Your task to perform on an android device: all mails in gmail Image 0: 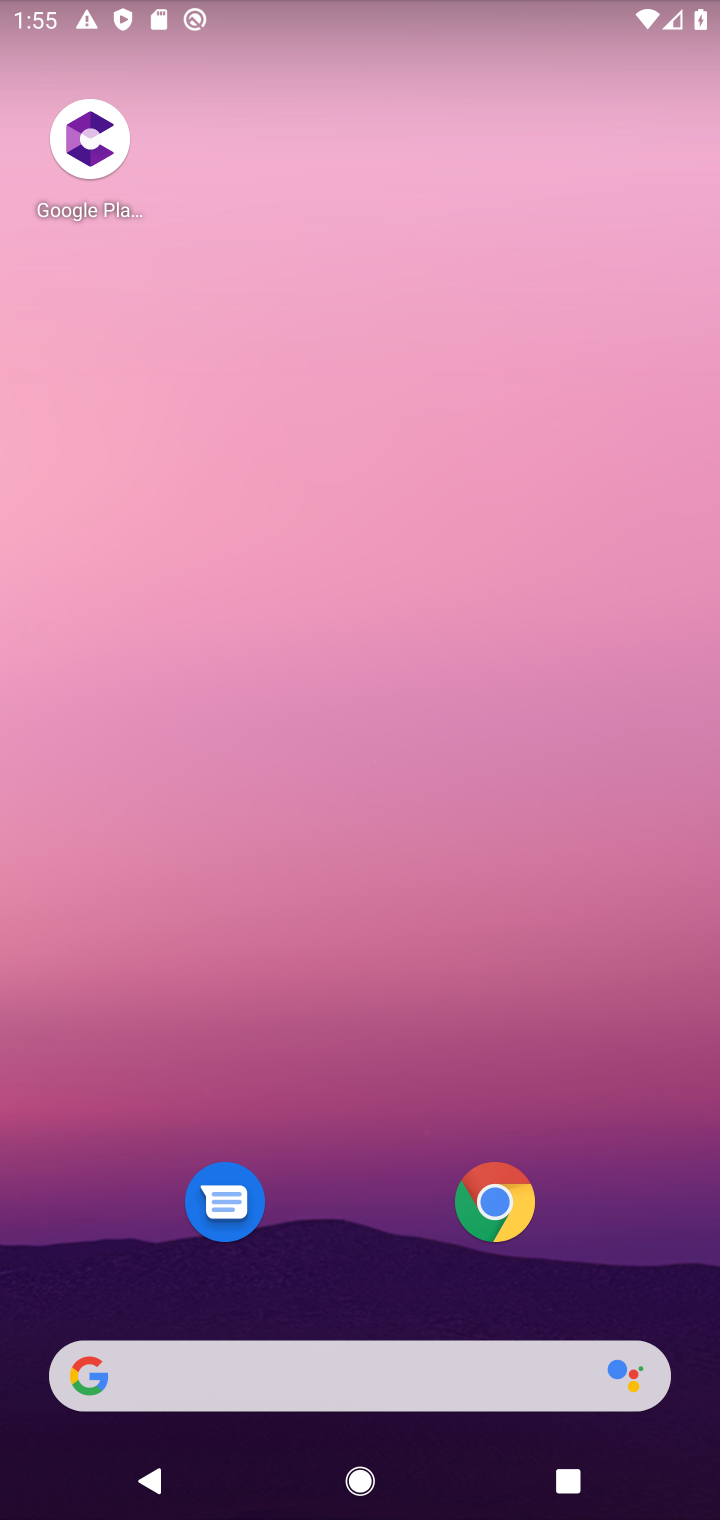
Step 0: drag from (483, 660) to (154, 13)
Your task to perform on an android device: all mails in gmail Image 1: 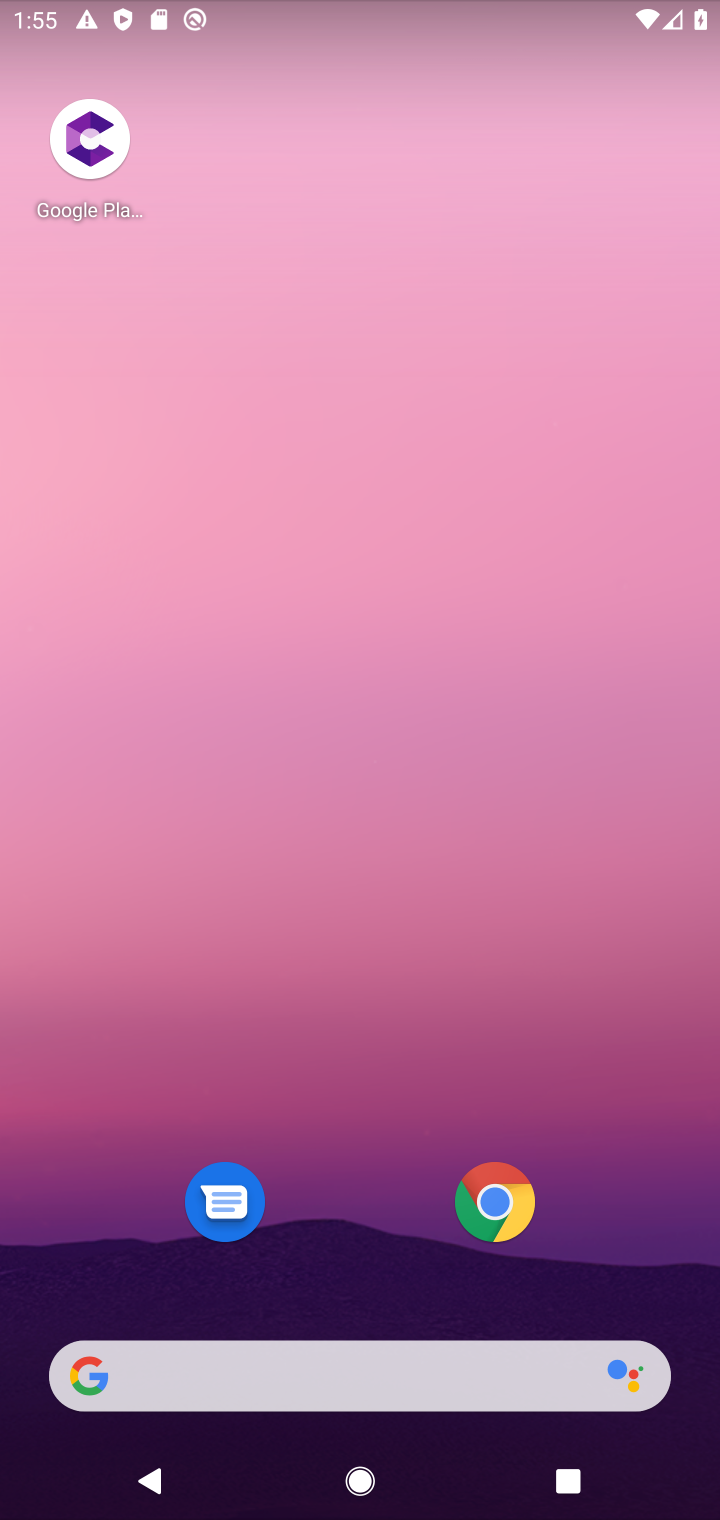
Step 1: drag from (179, 1257) to (448, 137)
Your task to perform on an android device: all mails in gmail Image 2: 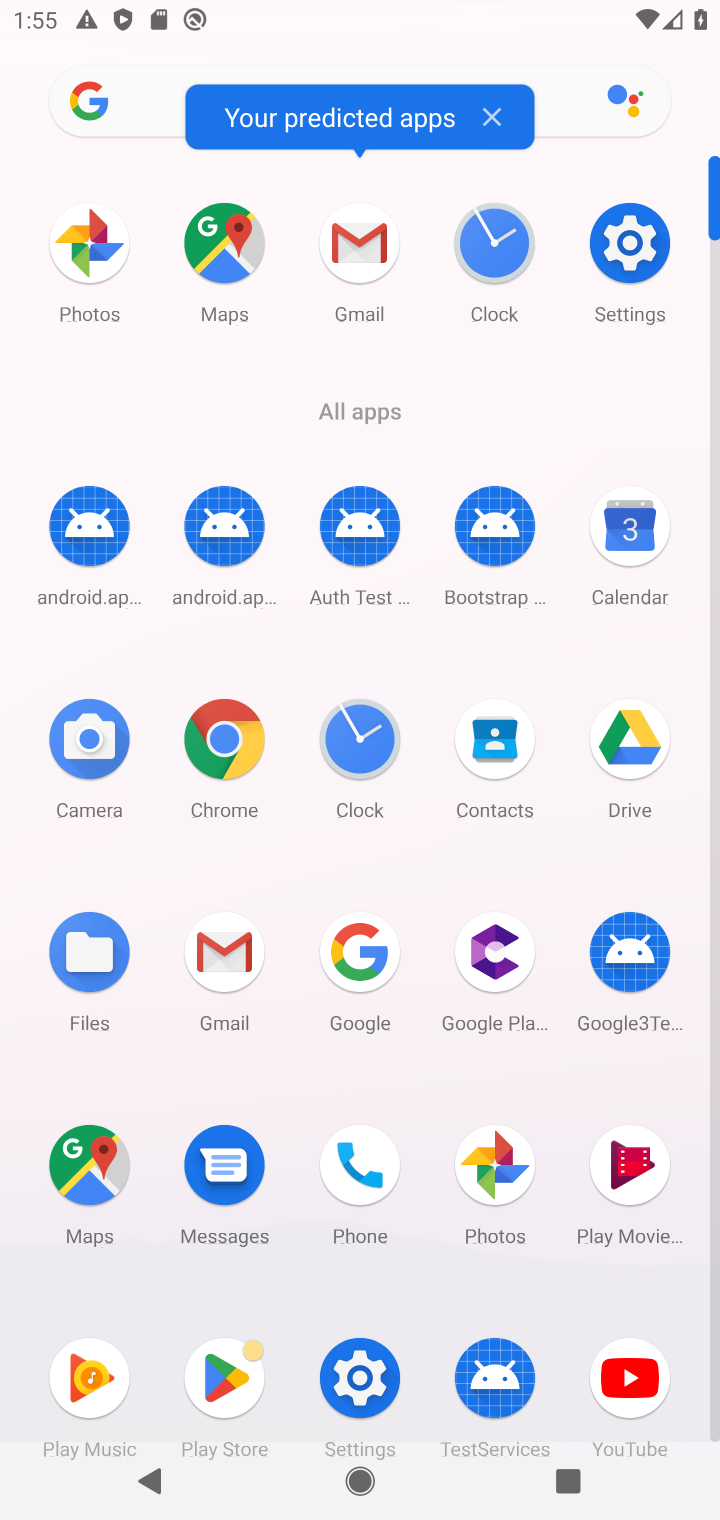
Step 2: click (371, 218)
Your task to perform on an android device: all mails in gmail Image 3: 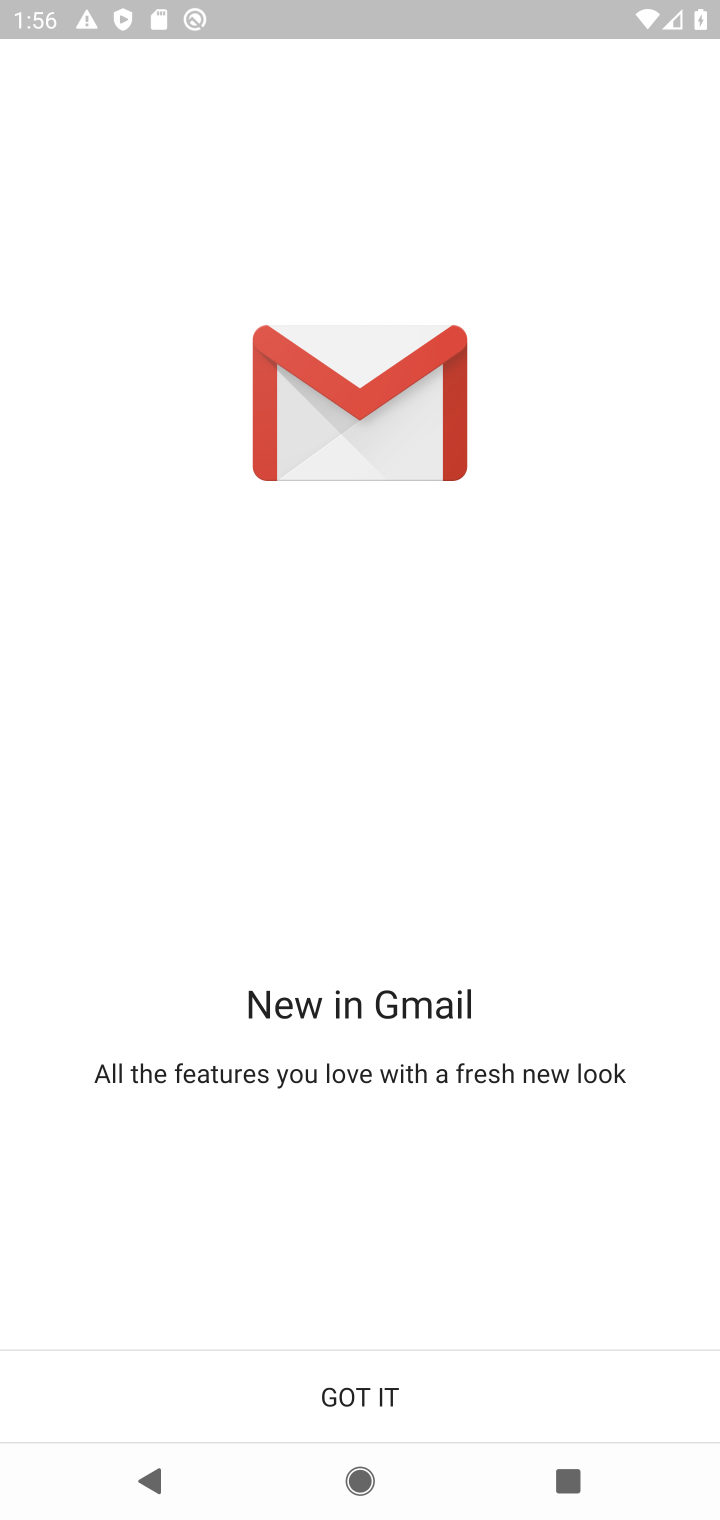
Step 3: click (372, 1403)
Your task to perform on an android device: all mails in gmail Image 4: 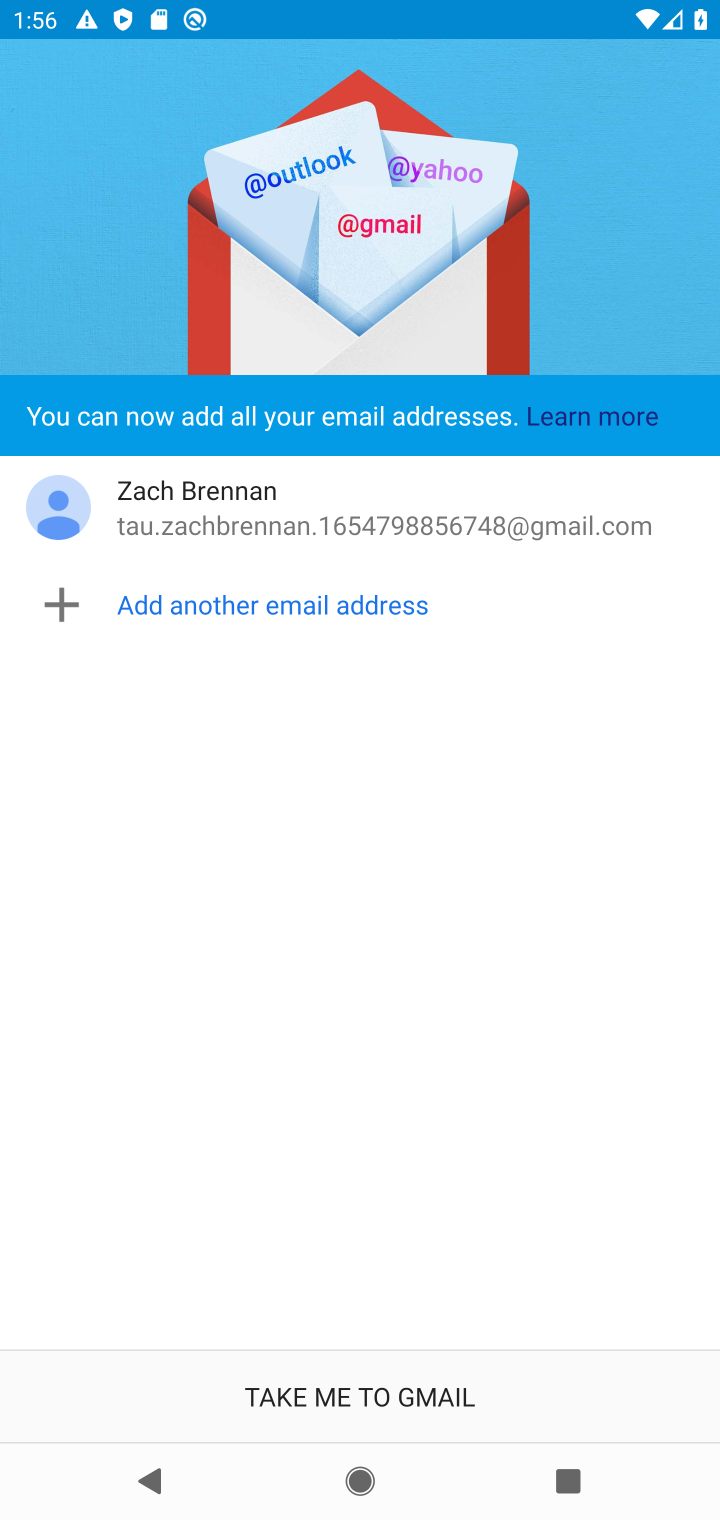
Step 4: click (345, 1390)
Your task to perform on an android device: all mails in gmail Image 5: 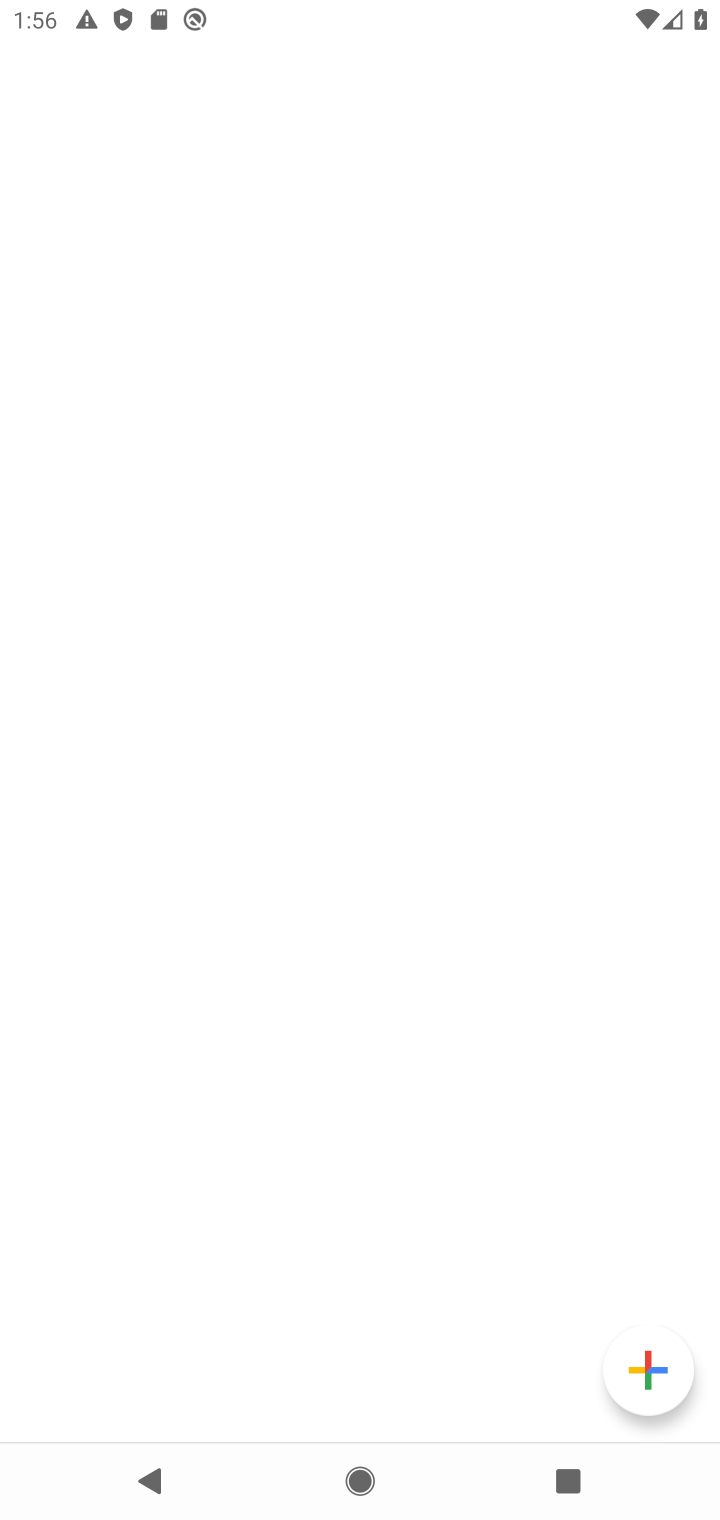
Step 5: click (357, 1373)
Your task to perform on an android device: all mails in gmail Image 6: 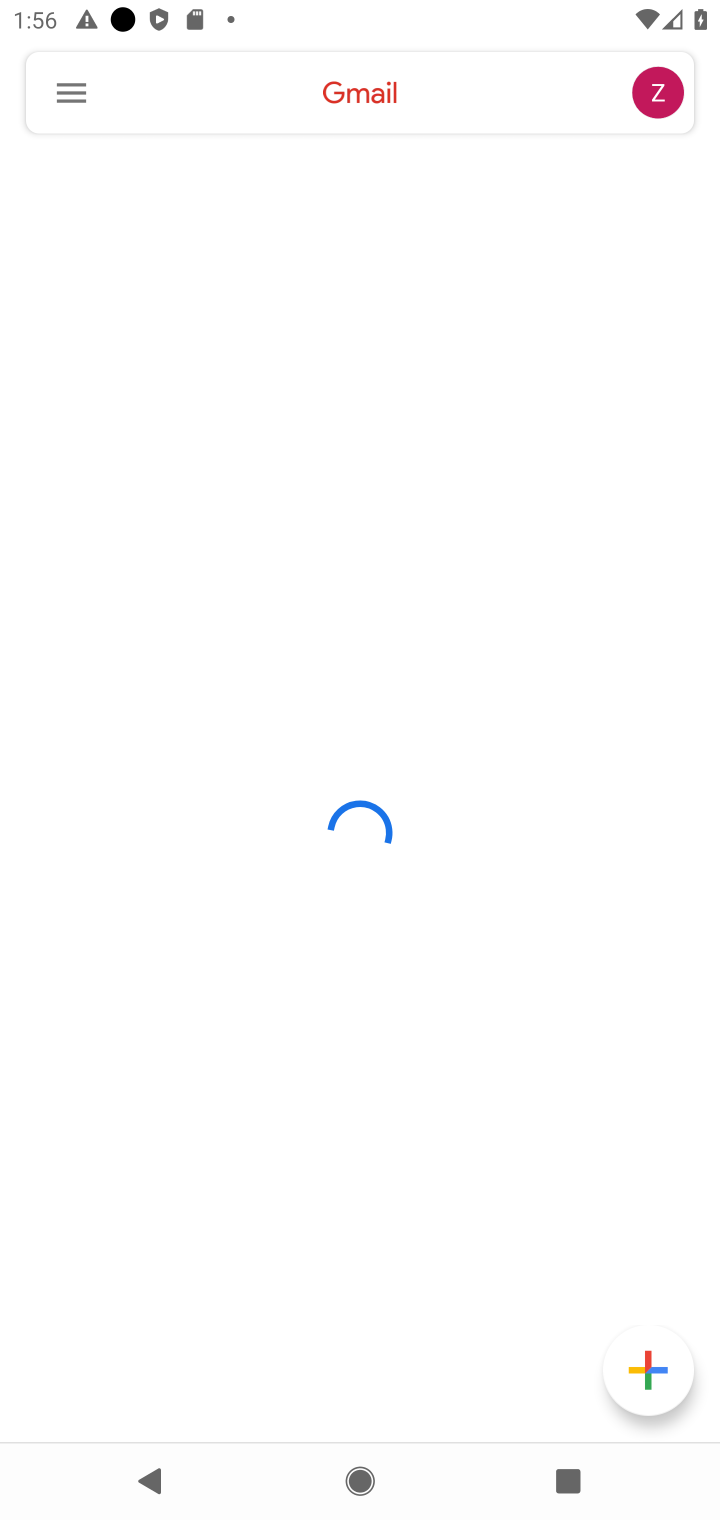
Step 6: click (64, 89)
Your task to perform on an android device: all mails in gmail Image 7: 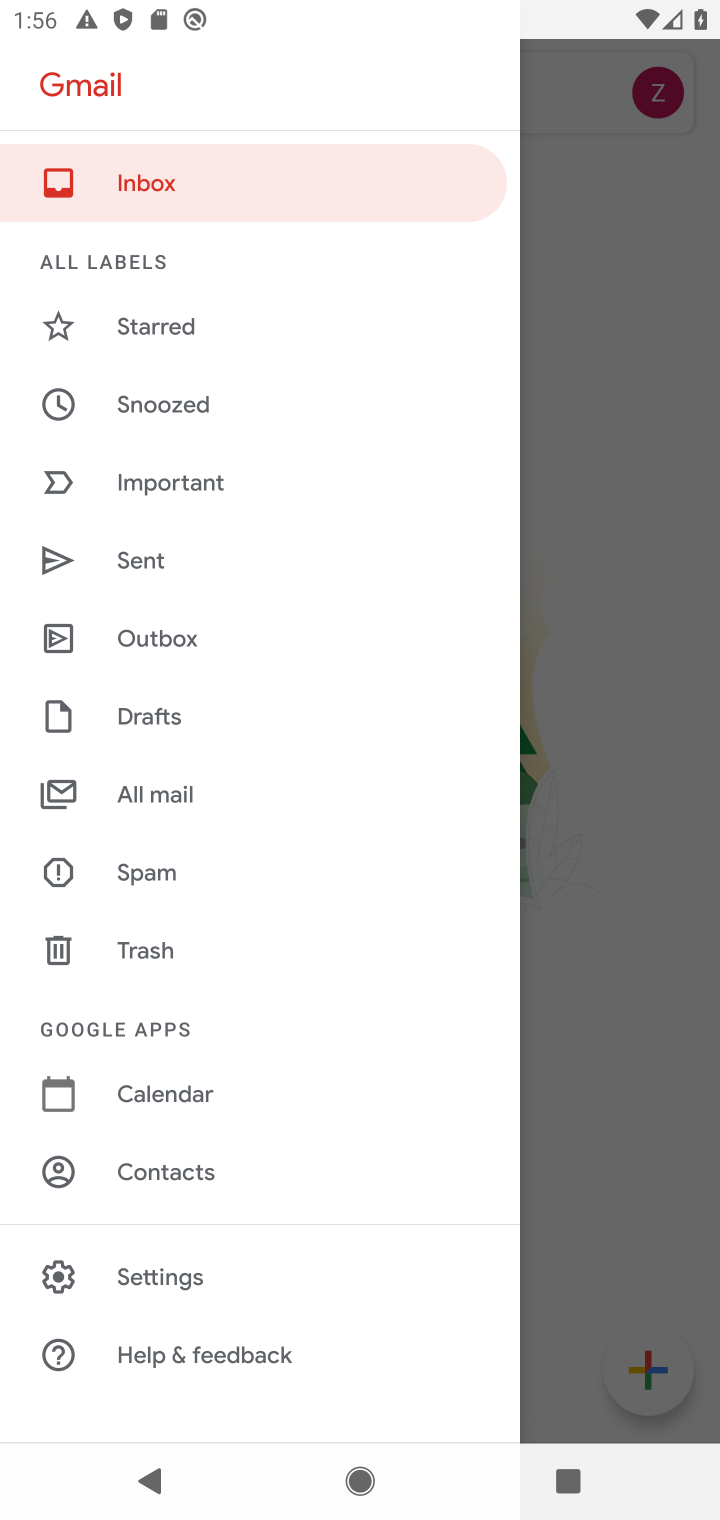
Step 7: click (134, 764)
Your task to perform on an android device: all mails in gmail Image 8: 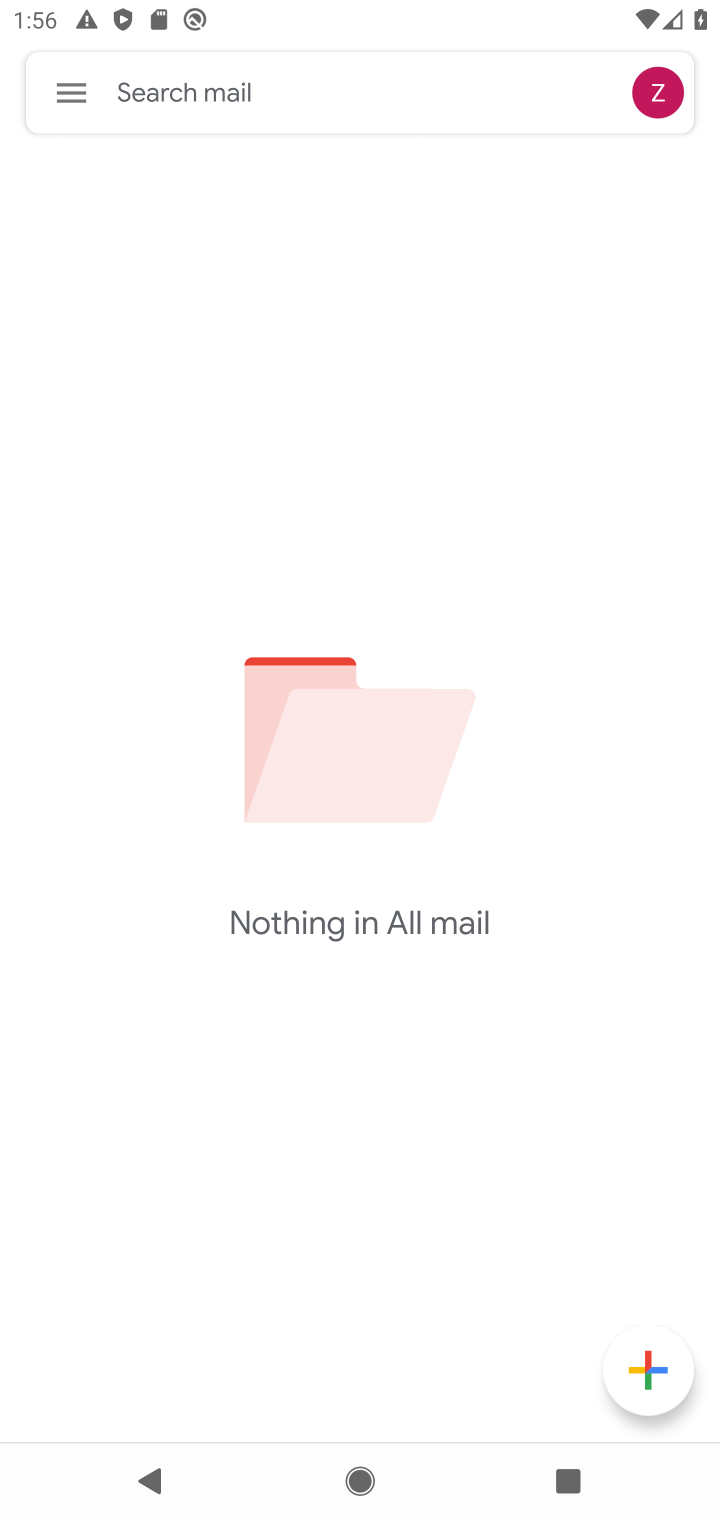
Step 8: task complete